Your task to perform on an android device: read, delete, or share a saved page in the chrome app Image 0: 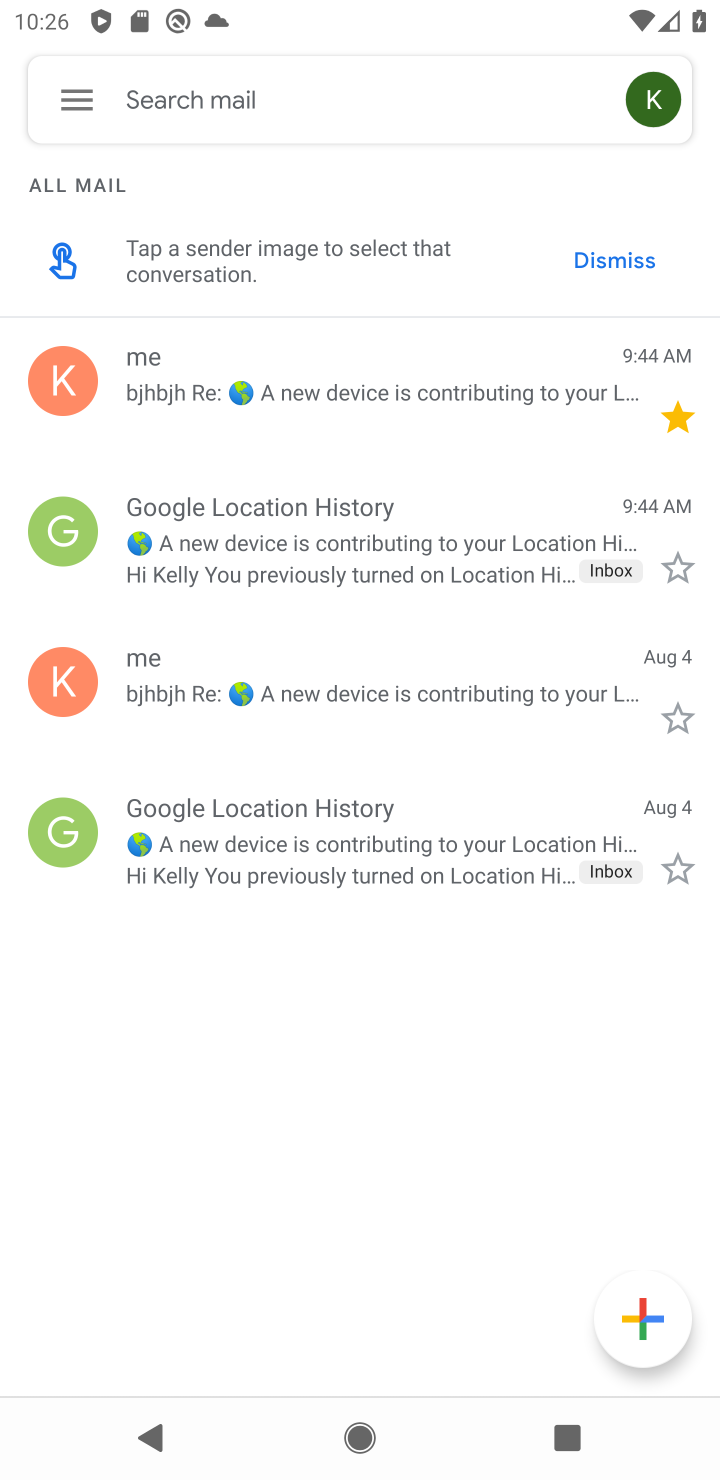
Step 0: press home button
Your task to perform on an android device: read, delete, or share a saved page in the chrome app Image 1: 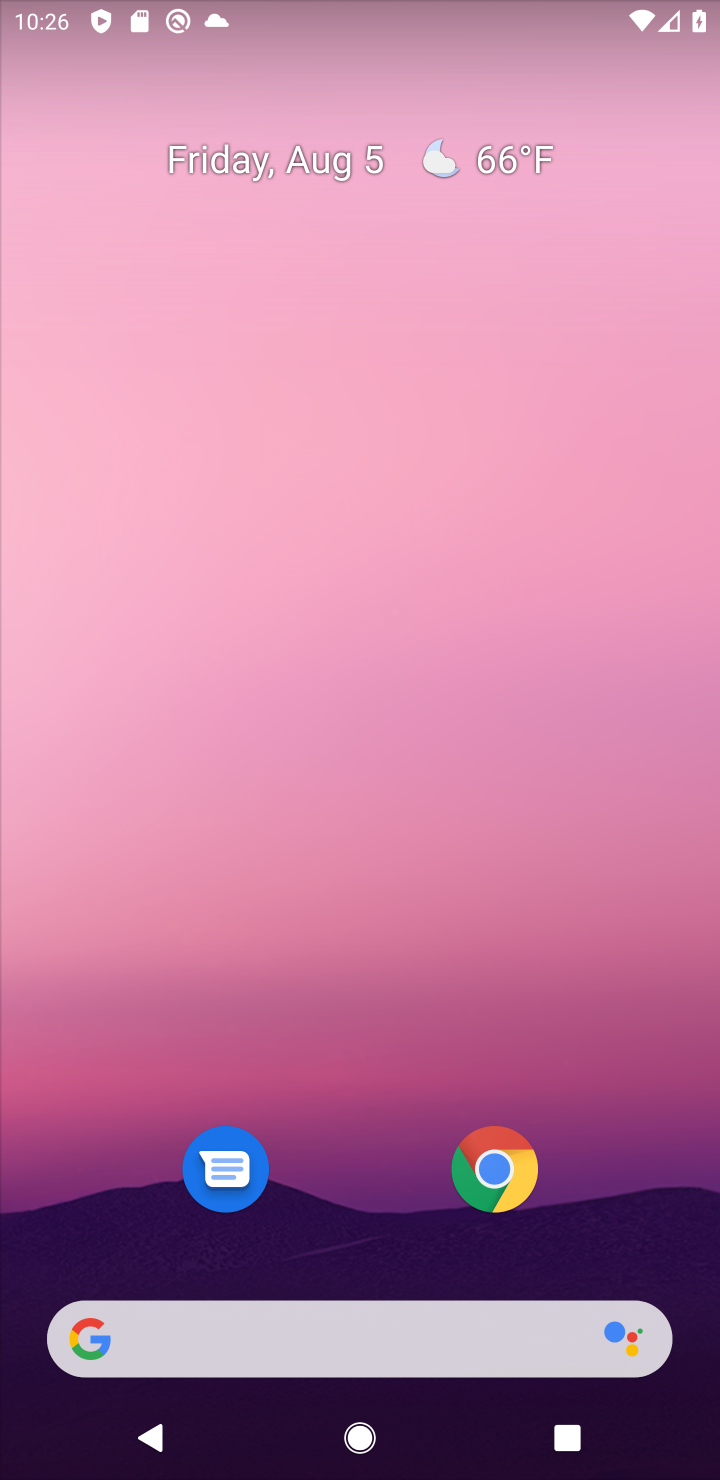
Step 1: click (493, 1169)
Your task to perform on an android device: read, delete, or share a saved page in the chrome app Image 2: 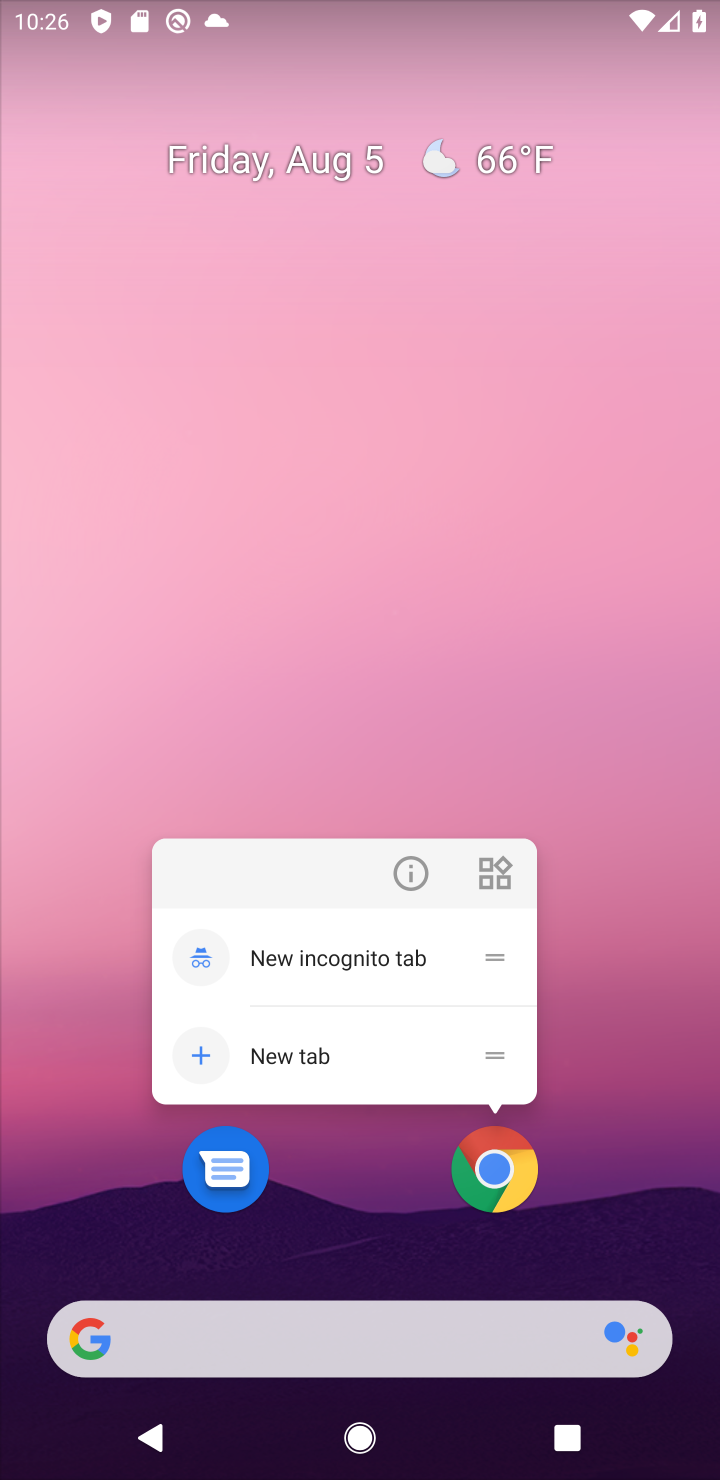
Step 2: click (485, 1168)
Your task to perform on an android device: read, delete, or share a saved page in the chrome app Image 3: 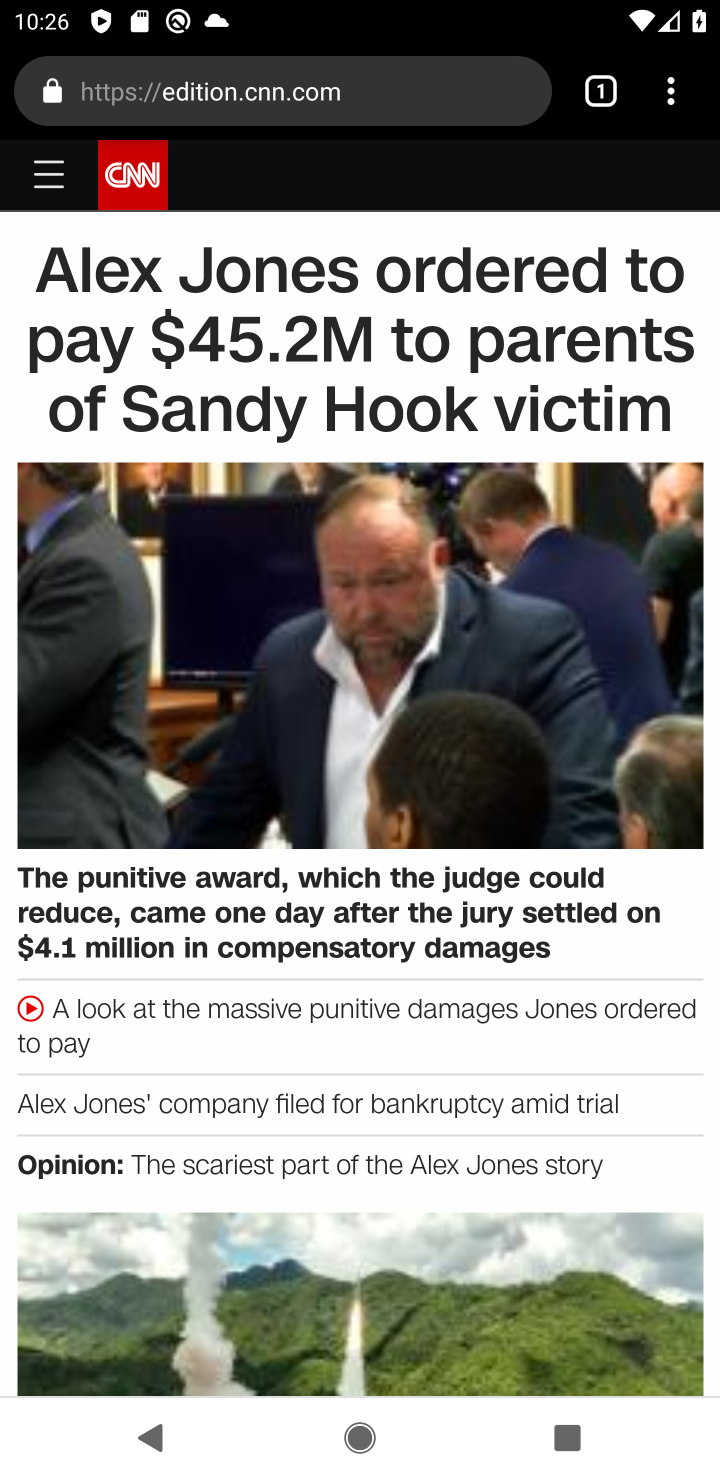
Step 3: click (662, 111)
Your task to perform on an android device: read, delete, or share a saved page in the chrome app Image 4: 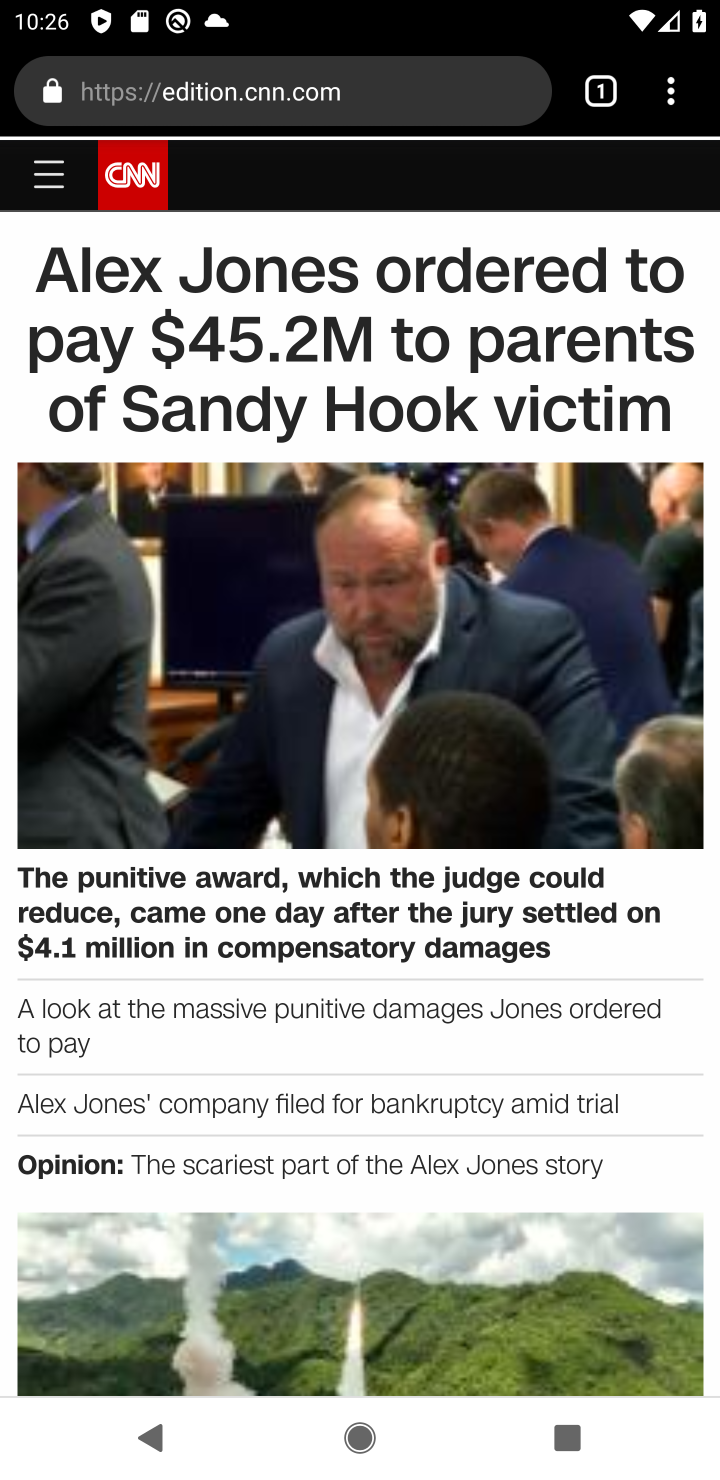
Step 4: click (659, 110)
Your task to perform on an android device: read, delete, or share a saved page in the chrome app Image 5: 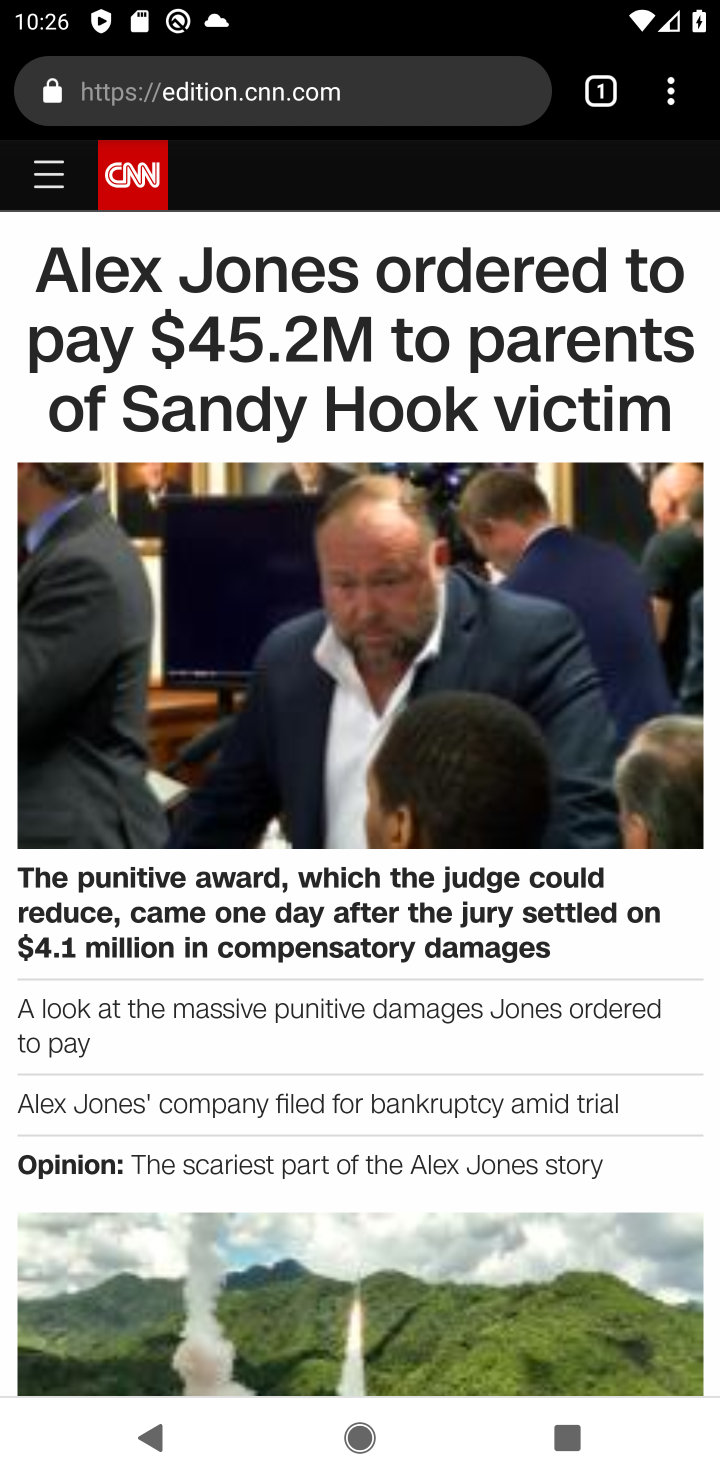
Step 5: click (659, 108)
Your task to perform on an android device: read, delete, or share a saved page in the chrome app Image 6: 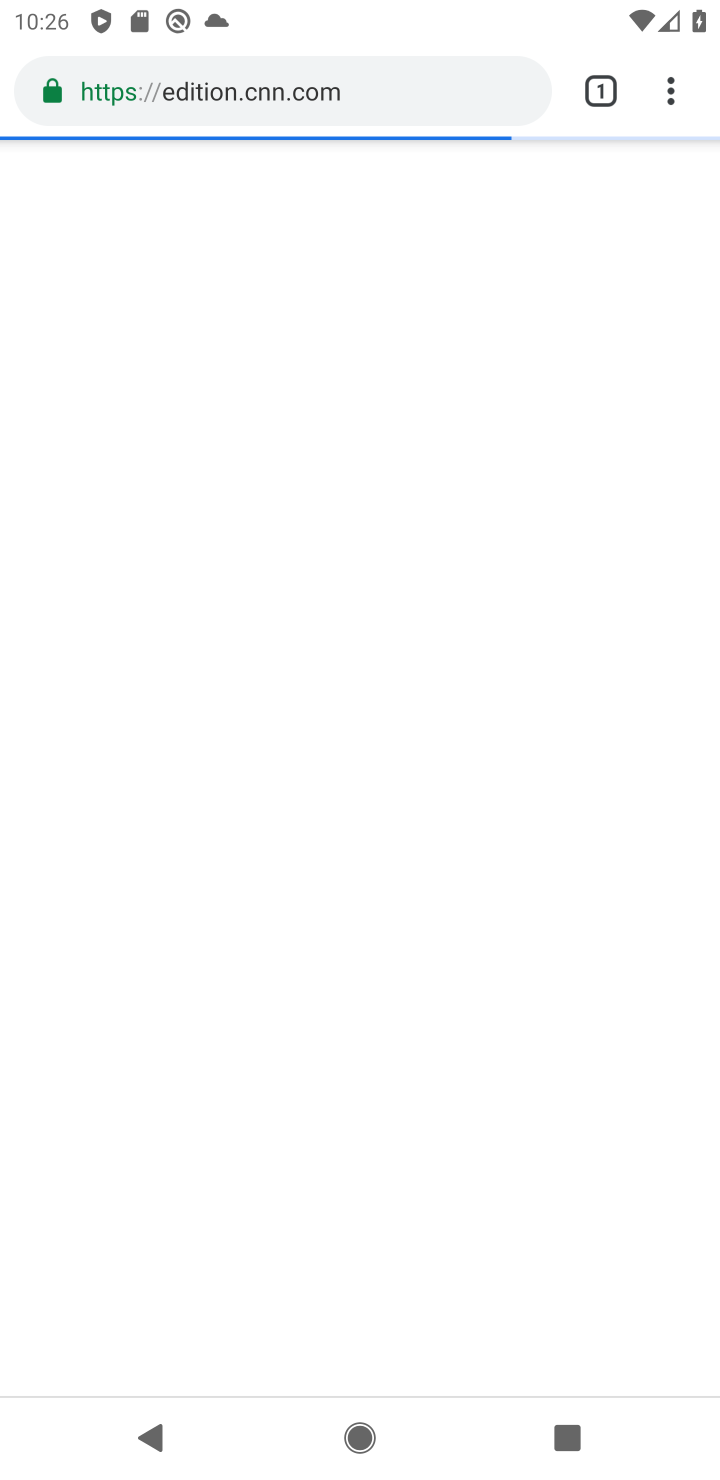
Step 6: task complete